Your task to perform on an android device: See recent photos Image 0: 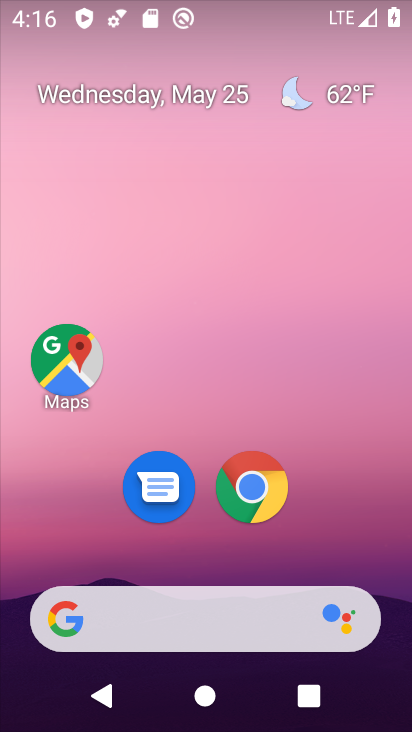
Step 0: drag from (20, 208) to (411, 254)
Your task to perform on an android device: See recent photos Image 1: 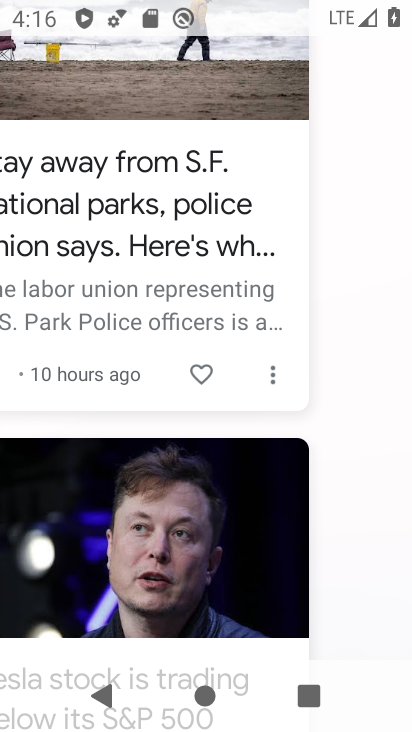
Step 1: drag from (353, 289) to (0, 287)
Your task to perform on an android device: See recent photos Image 2: 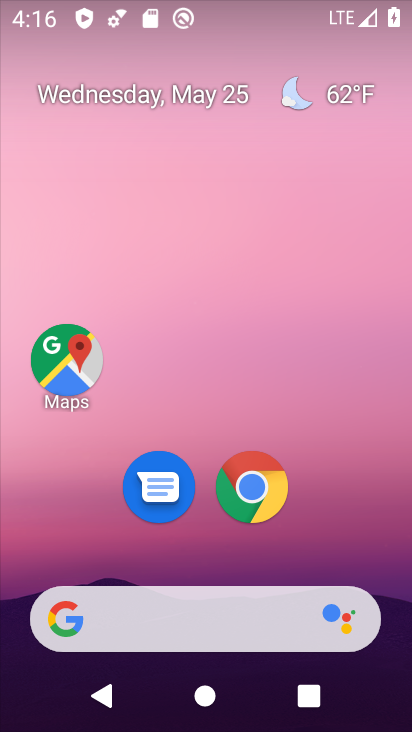
Step 2: drag from (386, 554) to (328, 3)
Your task to perform on an android device: See recent photos Image 3: 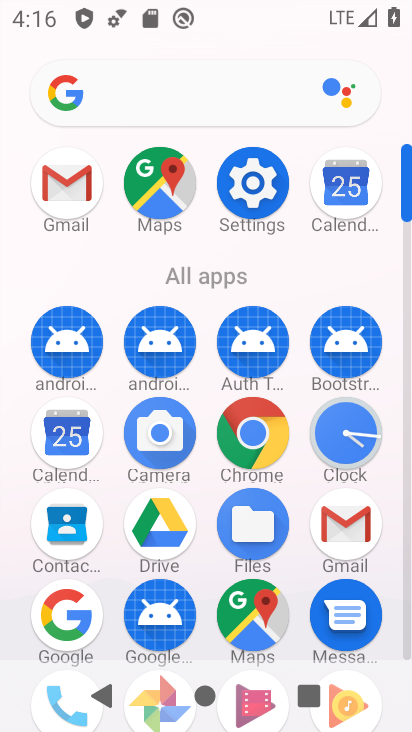
Step 3: drag from (207, 556) to (214, 400)
Your task to perform on an android device: See recent photos Image 4: 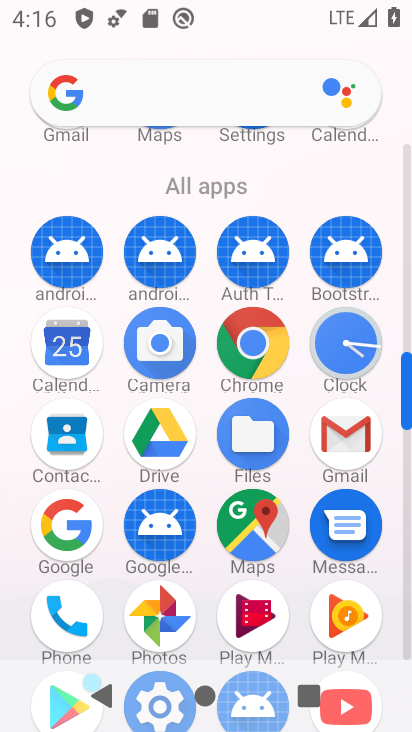
Step 4: click (162, 603)
Your task to perform on an android device: See recent photos Image 5: 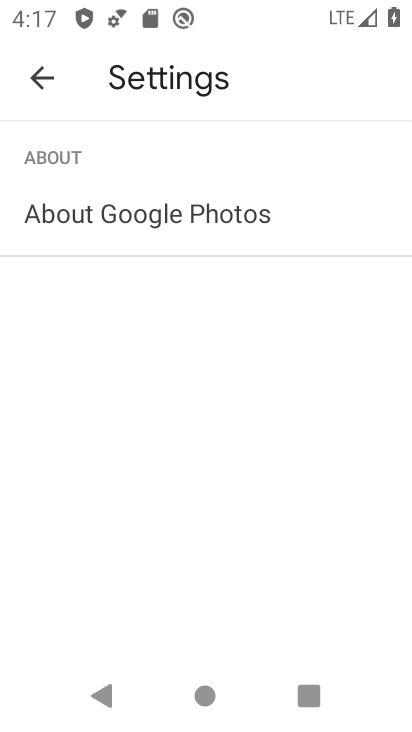
Step 5: click (37, 81)
Your task to perform on an android device: See recent photos Image 6: 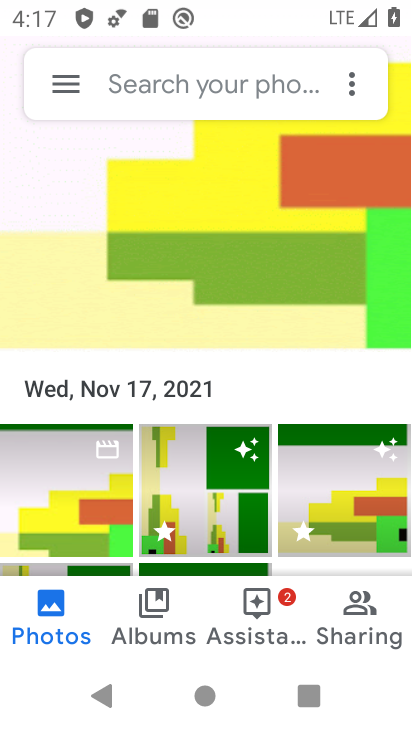
Step 6: click (61, 71)
Your task to perform on an android device: See recent photos Image 7: 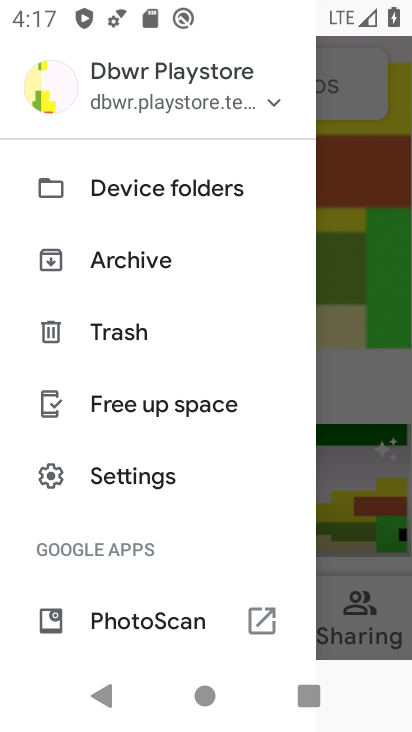
Step 7: task complete